Your task to perform on an android device: open device folders in google photos Image 0: 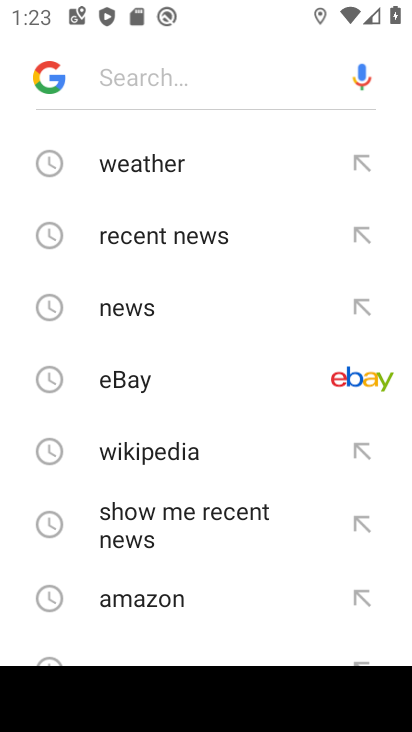
Step 0: press home button
Your task to perform on an android device: open device folders in google photos Image 1: 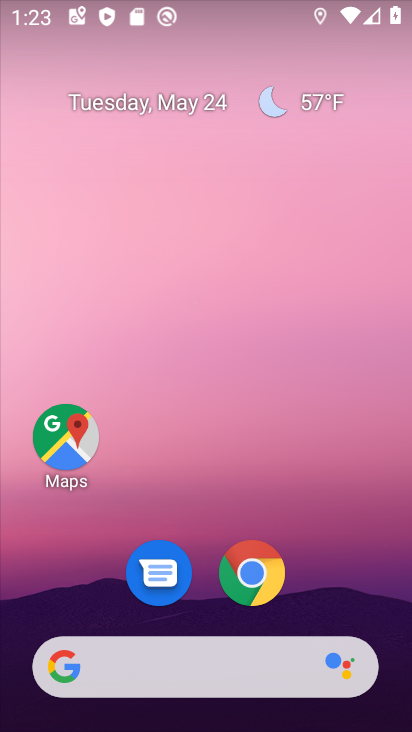
Step 1: drag from (384, 585) to (361, 192)
Your task to perform on an android device: open device folders in google photos Image 2: 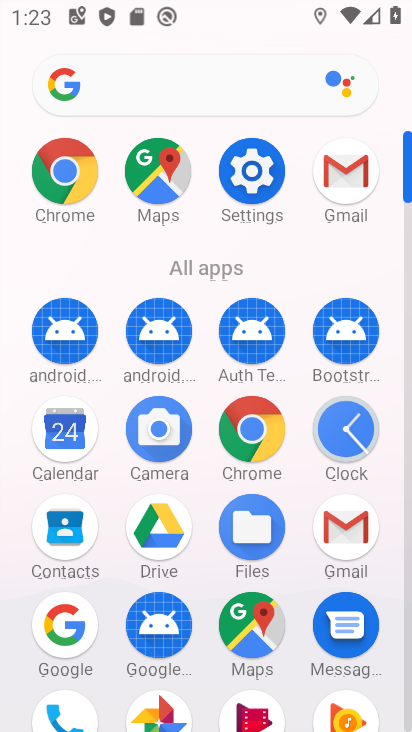
Step 2: drag from (310, 591) to (287, 253)
Your task to perform on an android device: open device folders in google photos Image 3: 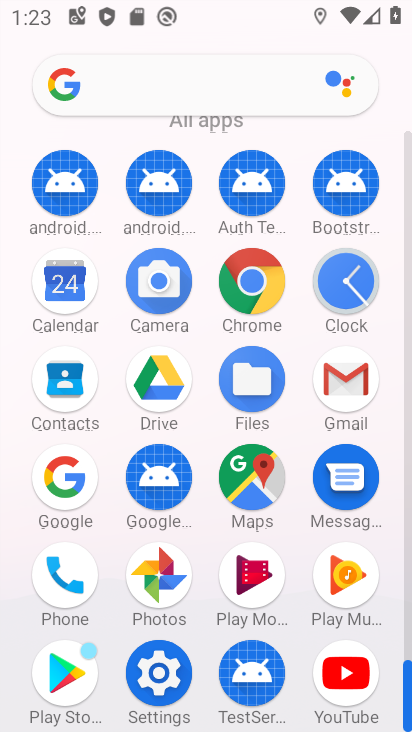
Step 3: click (163, 573)
Your task to perform on an android device: open device folders in google photos Image 4: 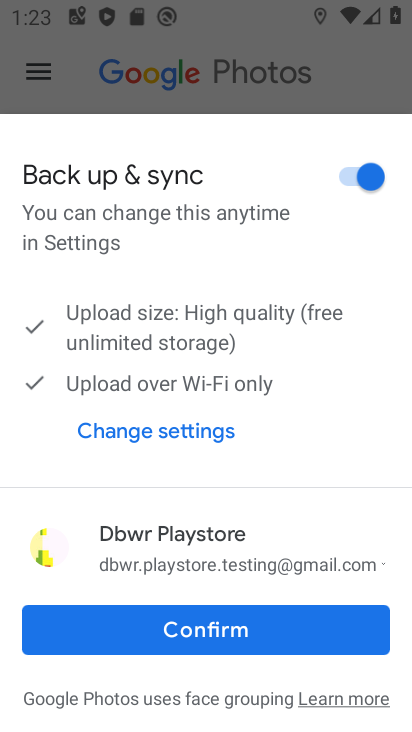
Step 4: click (192, 628)
Your task to perform on an android device: open device folders in google photos Image 5: 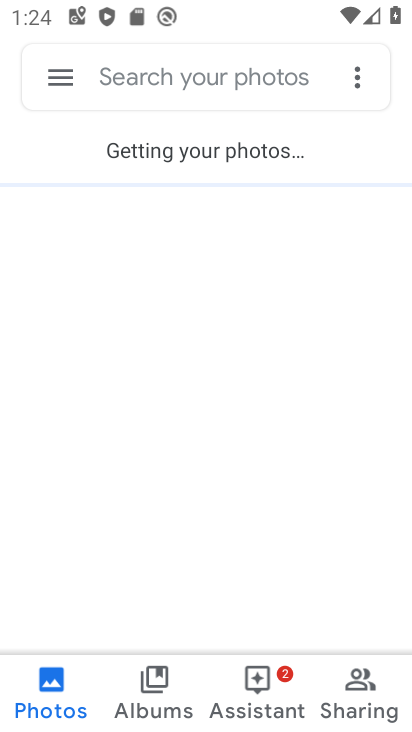
Step 5: click (66, 83)
Your task to perform on an android device: open device folders in google photos Image 6: 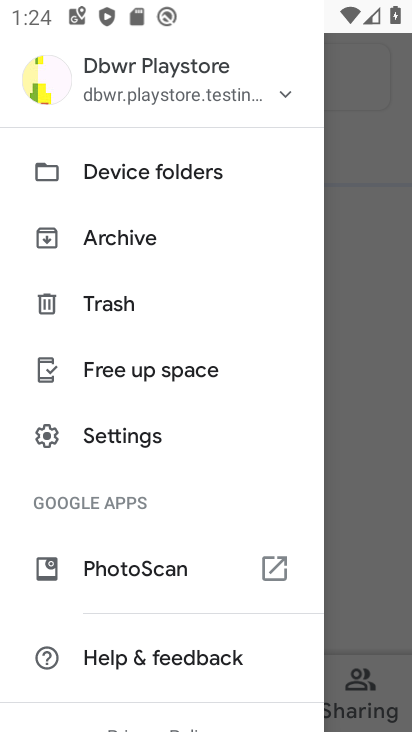
Step 6: click (111, 193)
Your task to perform on an android device: open device folders in google photos Image 7: 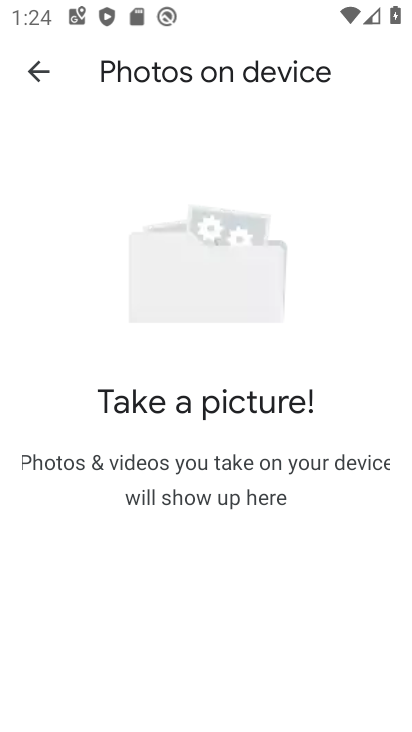
Step 7: task complete